Your task to perform on an android device: Open privacy settings Image 0: 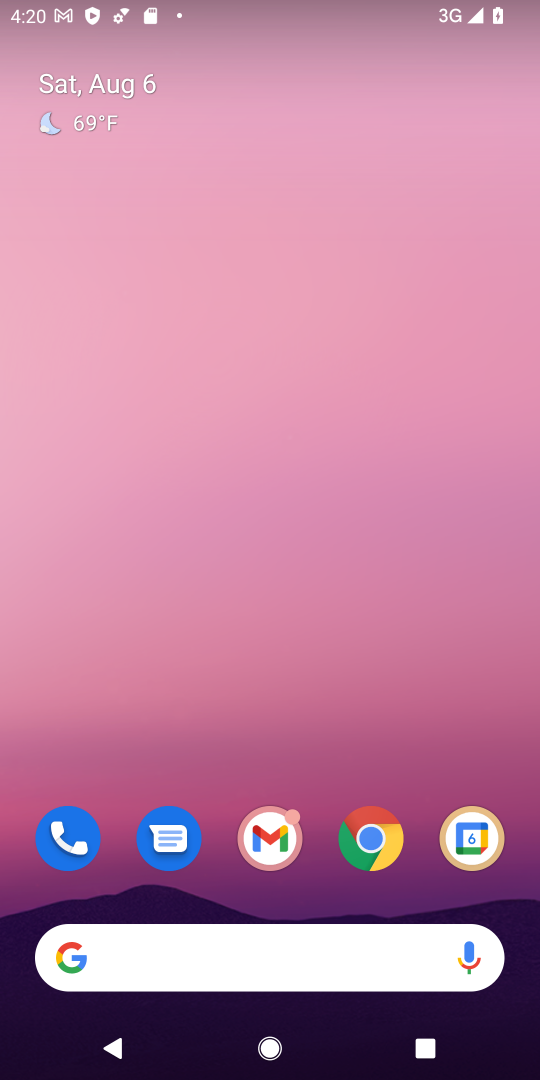
Step 0: drag from (129, 710) to (335, 83)
Your task to perform on an android device: Open privacy settings Image 1: 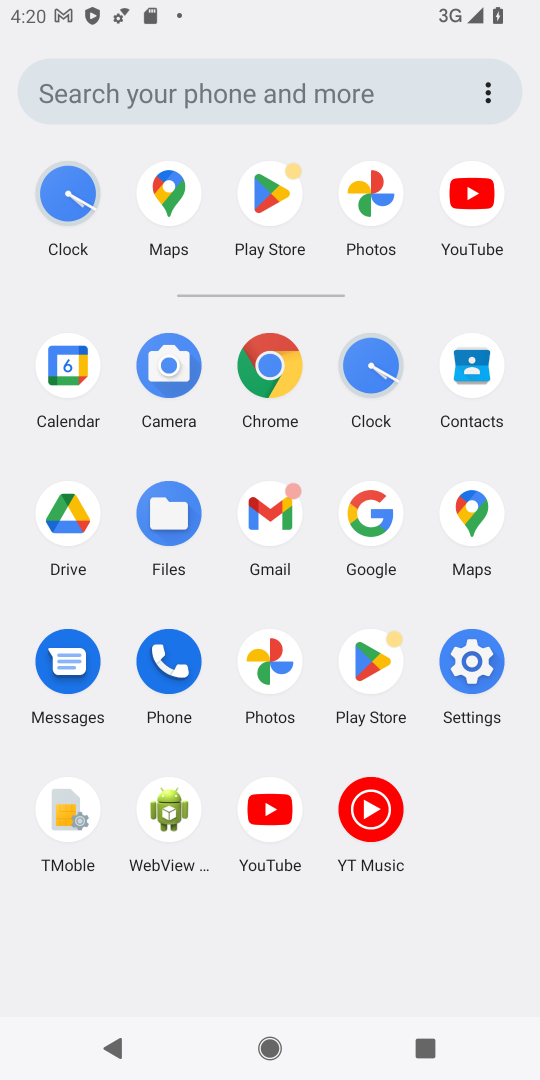
Step 1: click (470, 666)
Your task to perform on an android device: Open privacy settings Image 2: 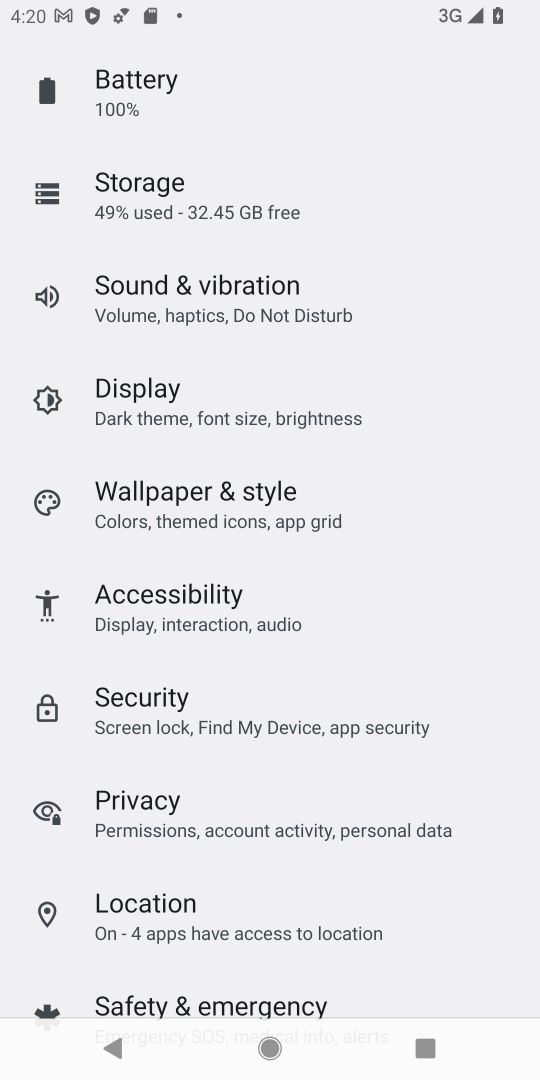
Step 2: click (147, 848)
Your task to perform on an android device: Open privacy settings Image 3: 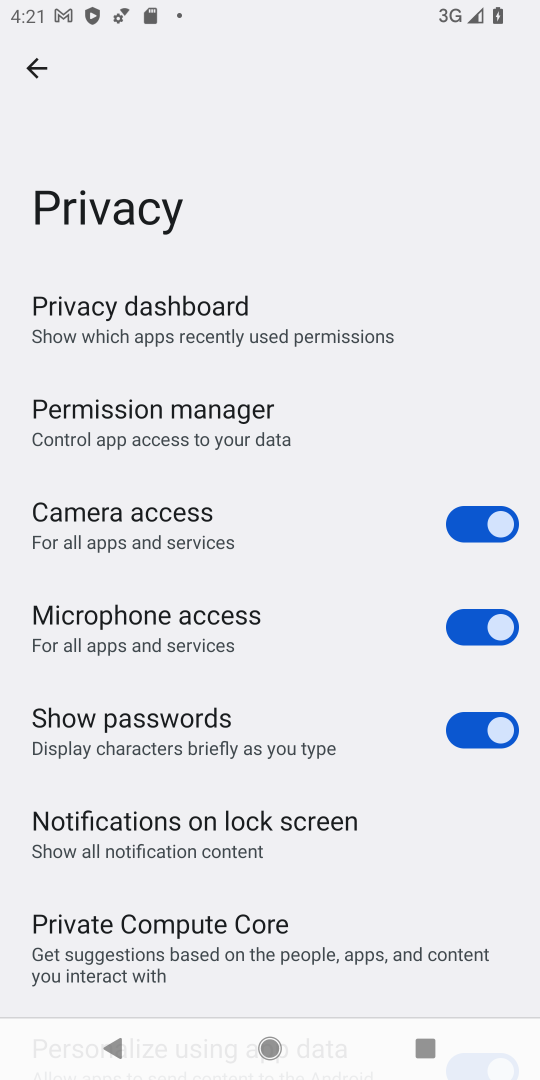
Step 3: task complete